Your task to perform on an android device: Open accessibility settings Image 0: 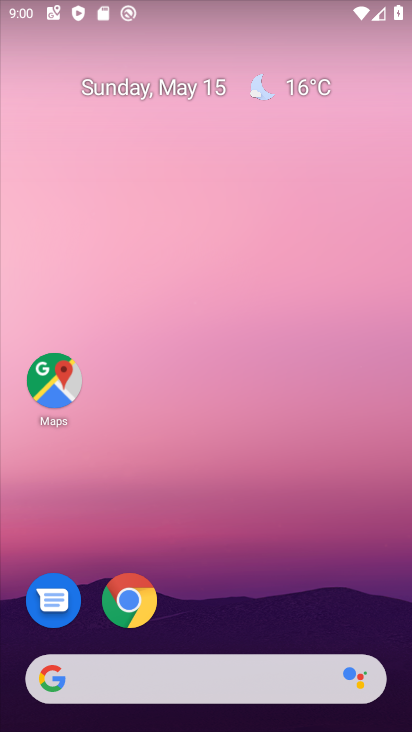
Step 0: drag from (210, 550) to (301, 62)
Your task to perform on an android device: Open accessibility settings Image 1: 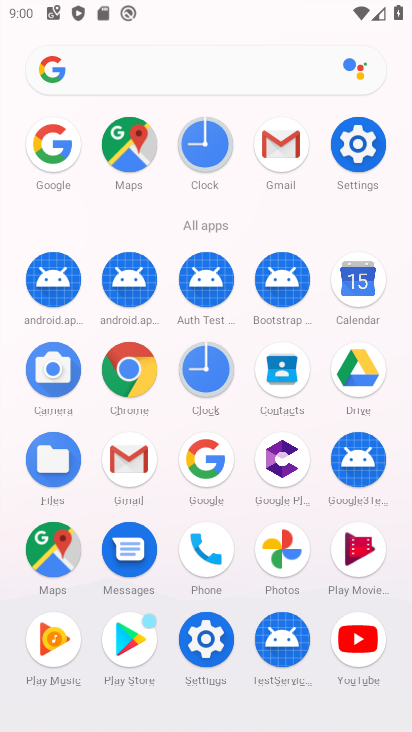
Step 1: click (350, 153)
Your task to perform on an android device: Open accessibility settings Image 2: 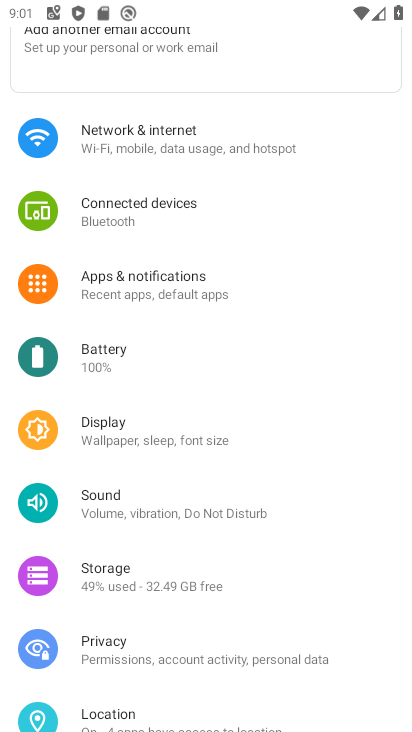
Step 2: drag from (225, 568) to (253, 42)
Your task to perform on an android device: Open accessibility settings Image 3: 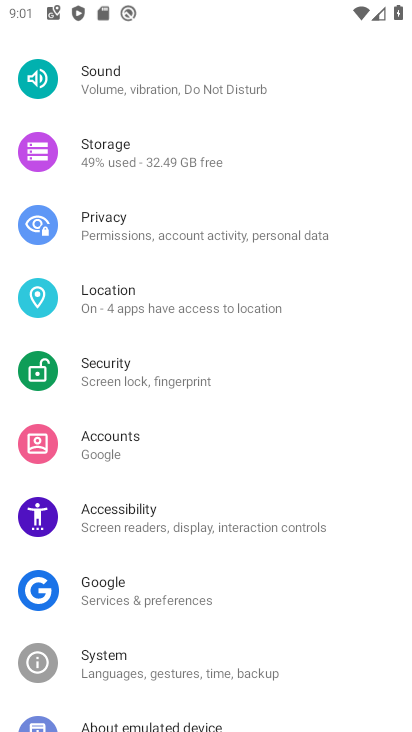
Step 3: click (121, 526)
Your task to perform on an android device: Open accessibility settings Image 4: 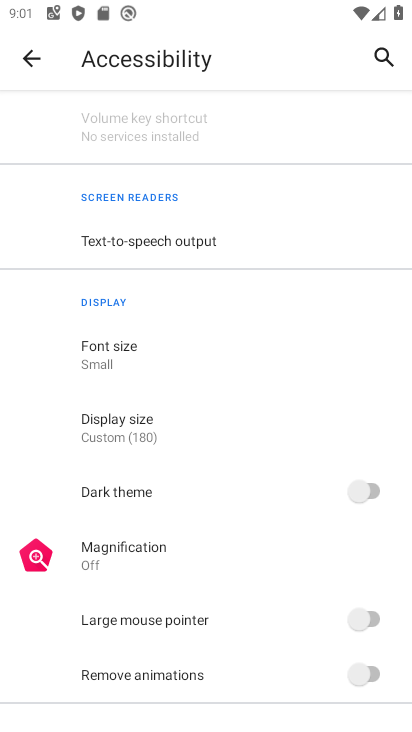
Step 4: task complete